Your task to perform on an android device: What's the weather going to be tomorrow? Image 0: 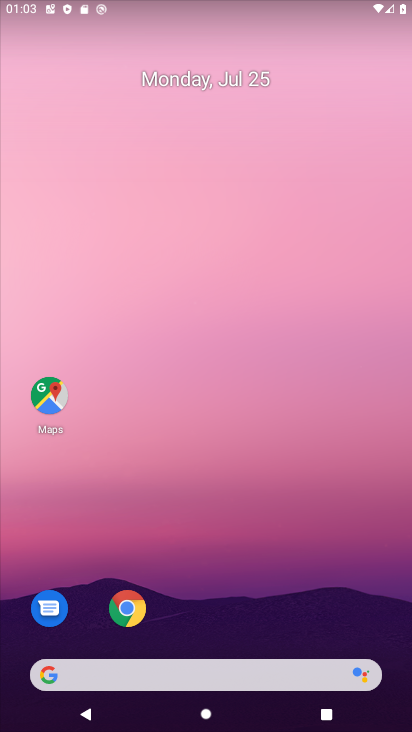
Step 0: drag from (231, 658) to (347, 555)
Your task to perform on an android device: What's the weather going to be tomorrow? Image 1: 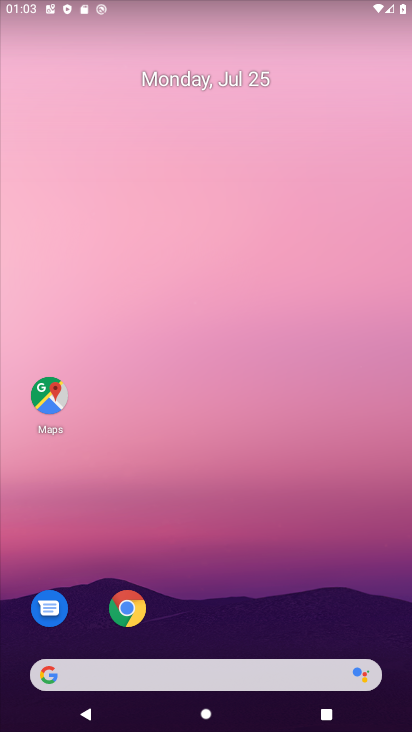
Step 1: drag from (218, 658) to (325, 39)
Your task to perform on an android device: What's the weather going to be tomorrow? Image 2: 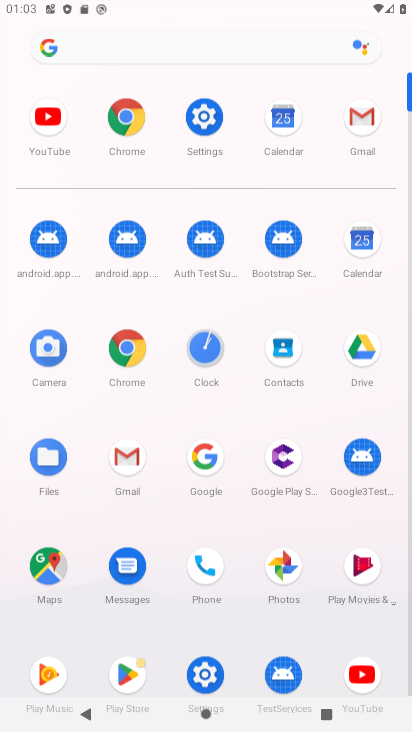
Step 2: click (200, 470)
Your task to perform on an android device: What's the weather going to be tomorrow? Image 3: 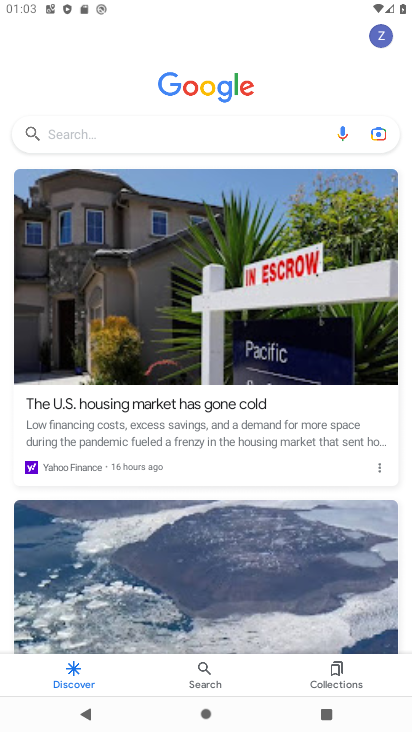
Step 3: click (218, 122)
Your task to perform on an android device: What's the weather going to be tomorrow? Image 4: 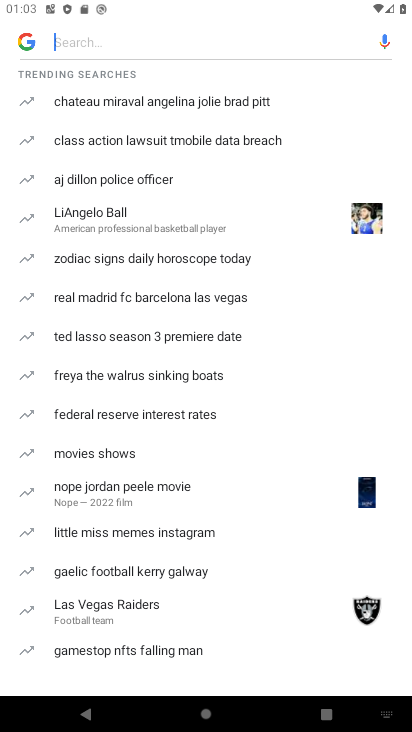
Step 4: type "weather "
Your task to perform on an android device: What's the weather going to be tomorrow? Image 5: 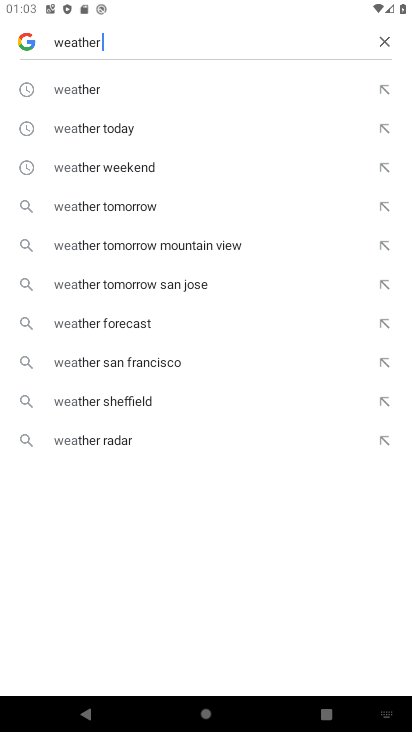
Step 5: type ""
Your task to perform on an android device: What's the weather going to be tomorrow? Image 6: 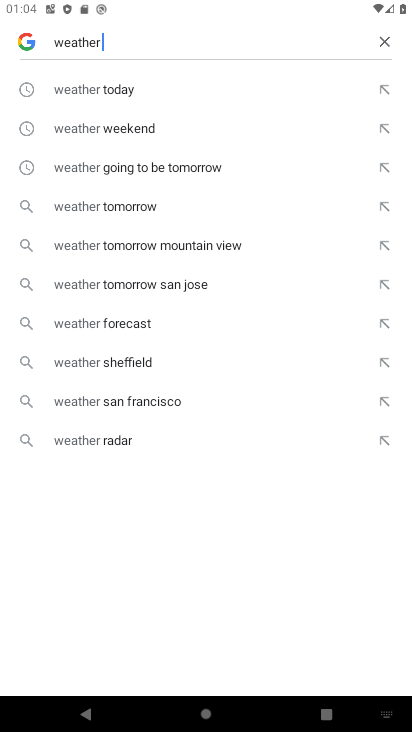
Step 6: click (106, 119)
Your task to perform on an android device: What's the weather going to be tomorrow? Image 7: 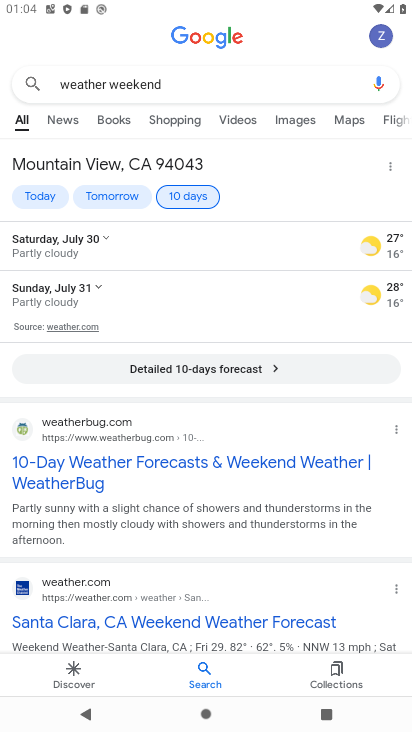
Step 7: click (102, 195)
Your task to perform on an android device: What's the weather going to be tomorrow? Image 8: 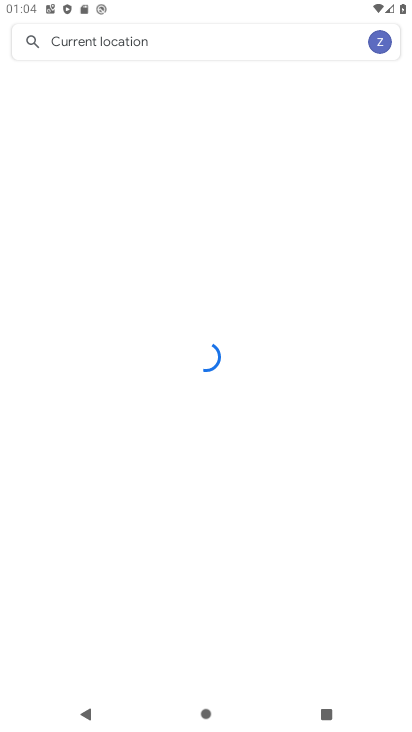
Step 8: task complete